Your task to perform on an android device: make emails show in primary in the gmail app Image 0: 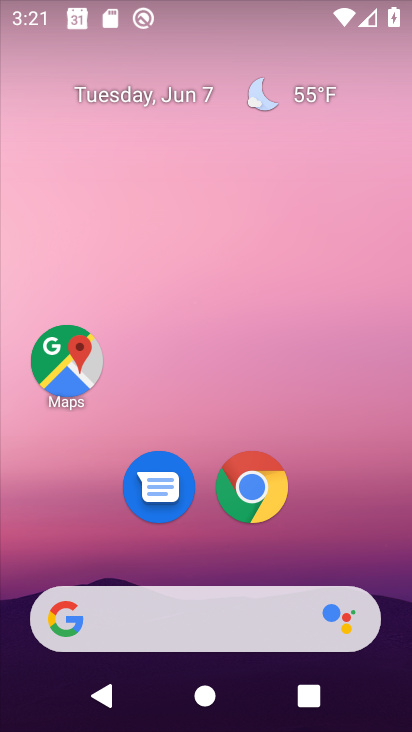
Step 0: drag from (201, 512) to (245, 67)
Your task to perform on an android device: make emails show in primary in the gmail app Image 1: 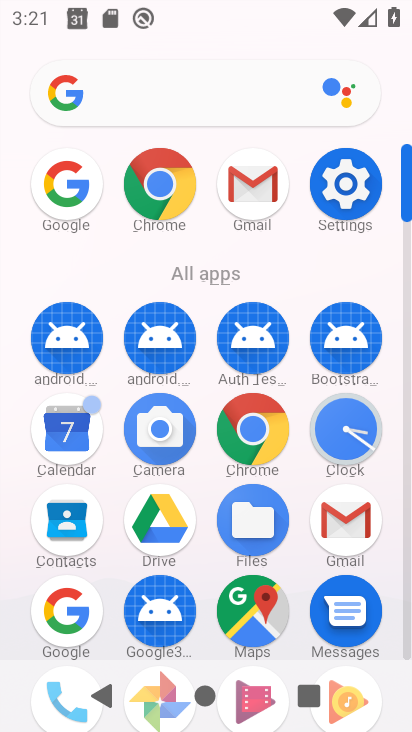
Step 1: click (350, 519)
Your task to perform on an android device: make emails show in primary in the gmail app Image 2: 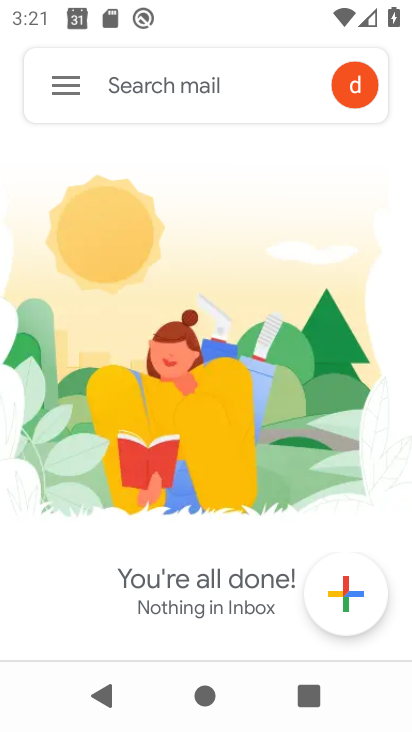
Step 2: click (57, 86)
Your task to perform on an android device: make emails show in primary in the gmail app Image 3: 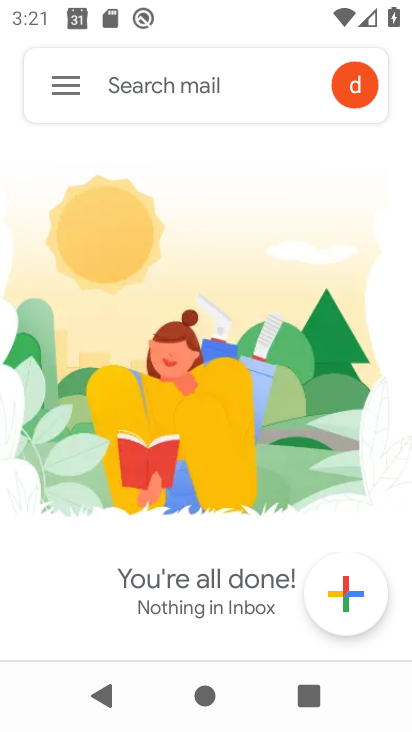
Step 3: click (71, 88)
Your task to perform on an android device: make emails show in primary in the gmail app Image 4: 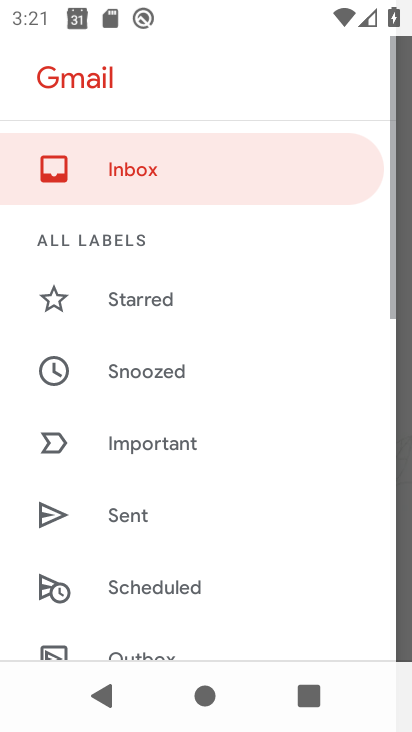
Step 4: drag from (203, 580) to (207, 119)
Your task to perform on an android device: make emails show in primary in the gmail app Image 5: 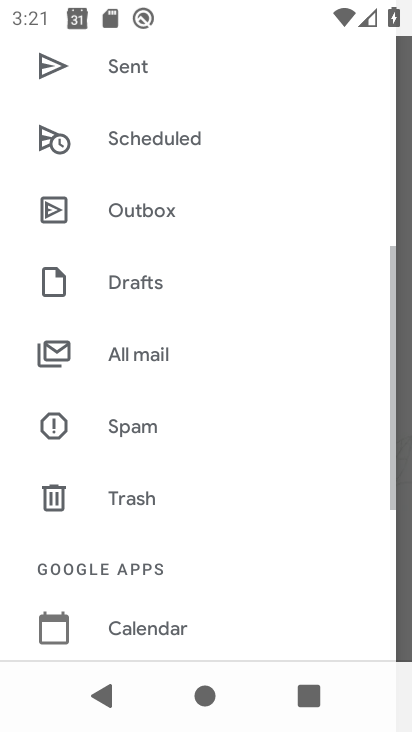
Step 5: drag from (208, 557) to (179, 219)
Your task to perform on an android device: make emails show in primary in the gmail app Image 6: 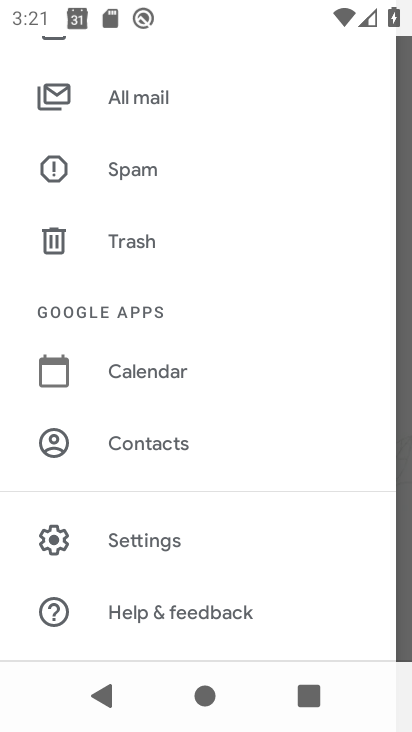
Step 6: click (170, 554)
Your task to perform on an android device: make emails show in primary in the gmail app Image 7: 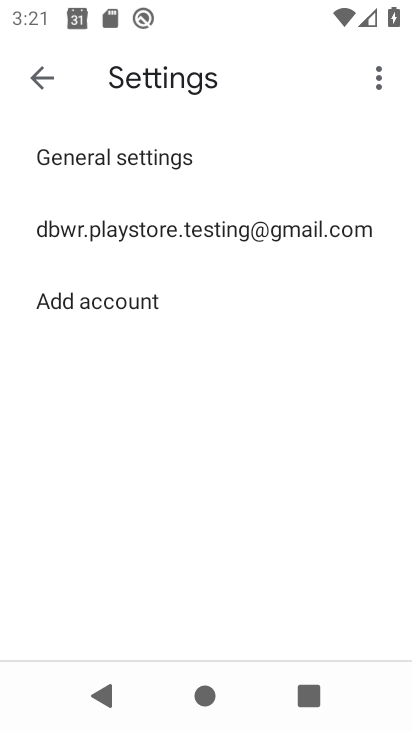
Step 7: click (160, 235)
Your task to perform on an android device: make emails show in primary in the gmail app Image 8: 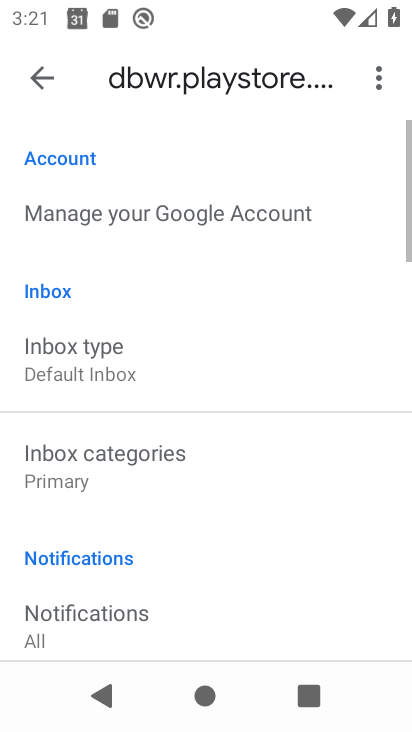
Step 8: task complete